Your task to perform on an android device: Open Reddit.com Image 0: 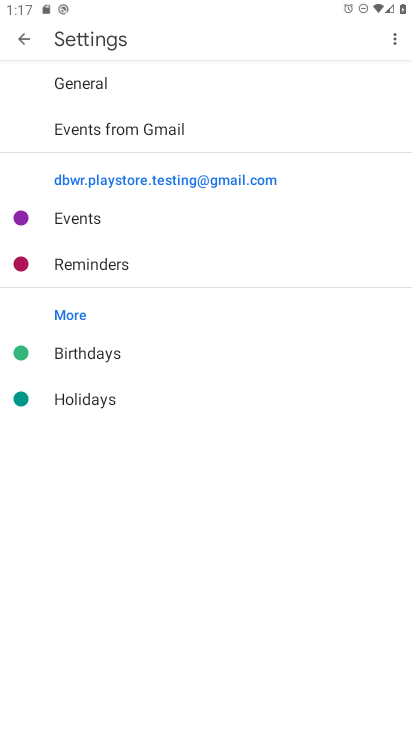
Step 0: press home button
Your task to perform on an android device: Open Reddit.com Image 1: 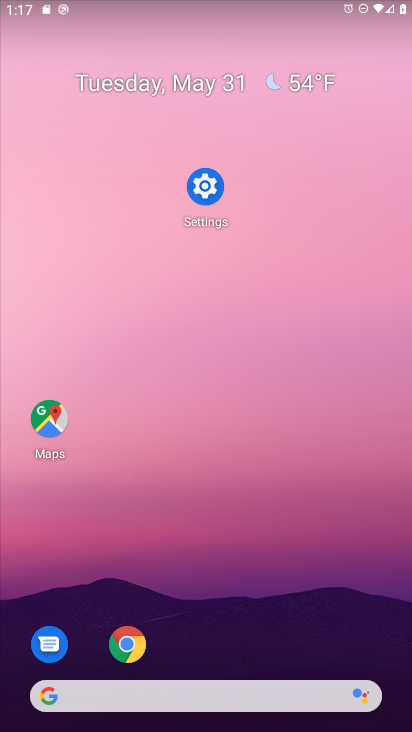
Step 1: click (50, 691)
Your task to perform on an android device: Open Reddit.com Image 2: 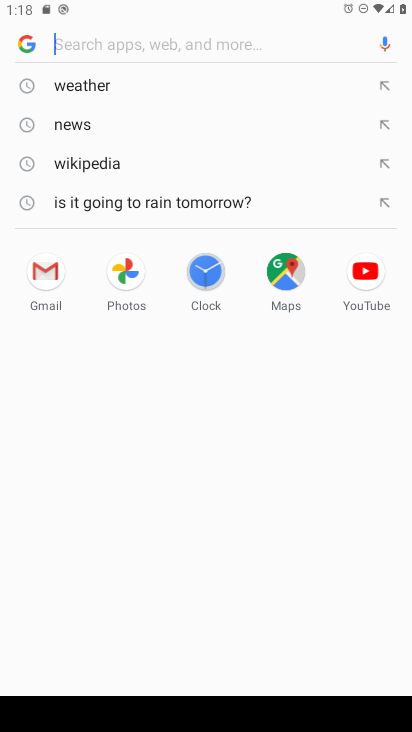
Step 2: type "Reddit.com"
Your task to perform on an android device: Open Reddit.com Image 3: 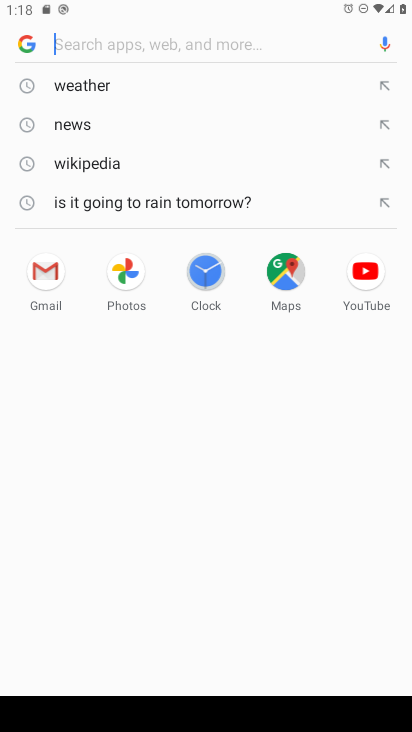
Step 3: click (200, 35)
Your task to perform on an android device: Open Reddit.com Image 4: 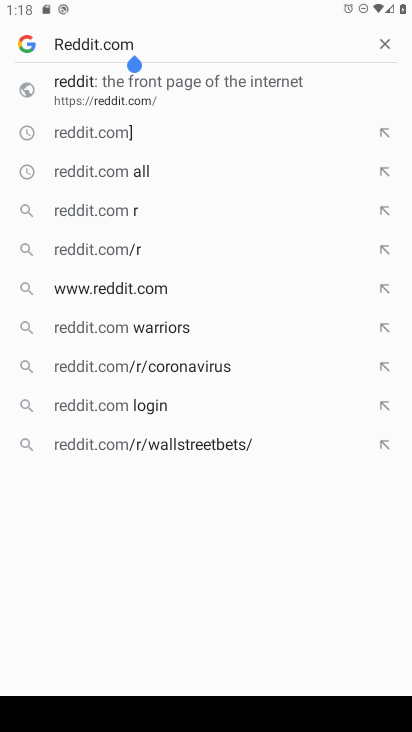
Step 4: click (84, 82)
Your task to perform on an android device: Open Reddit.com Image 5: 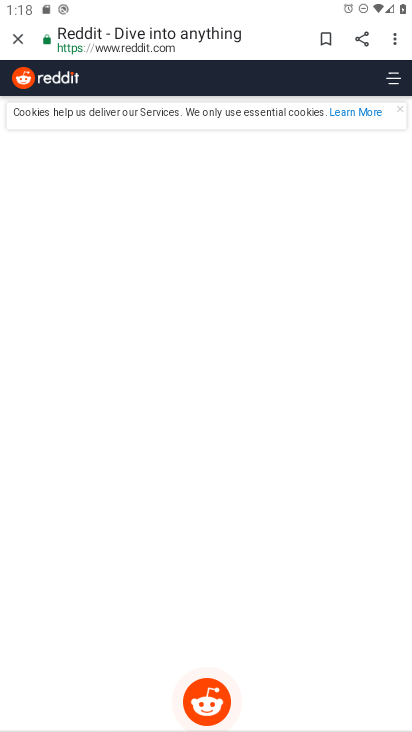
Step 5: task complete